Your task to perform on an android device: turn off sleep mode Image 0: 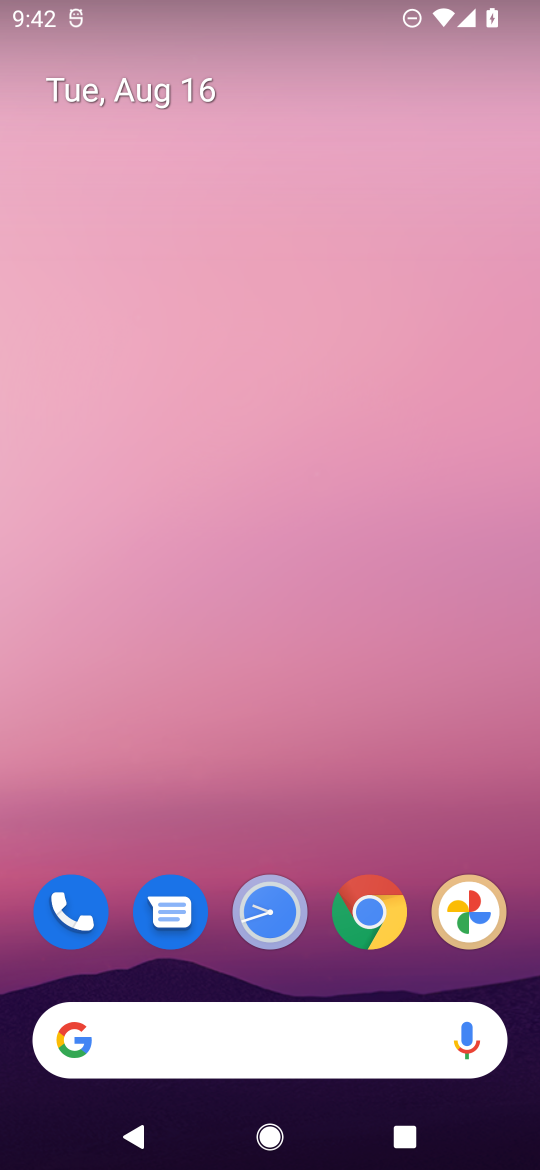
Step 0: drag from (273, 845) to (291, 20)
Your task to perform on an android device: turn off sleep mode Image 1: 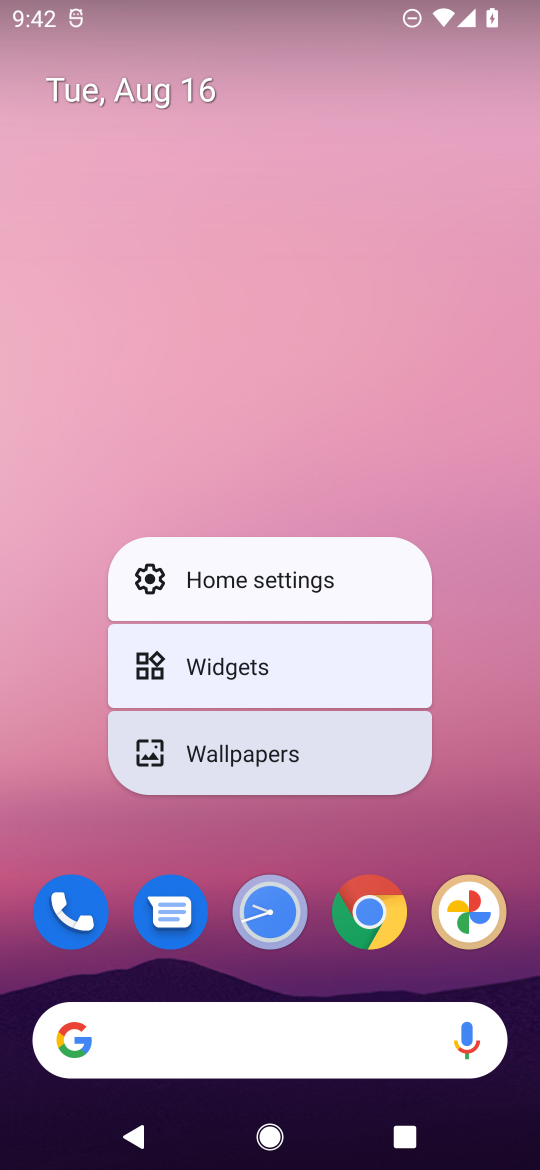
Step 1: click (407, 437)
Your task to perform on an android device: turn off sleep mode Image 2: 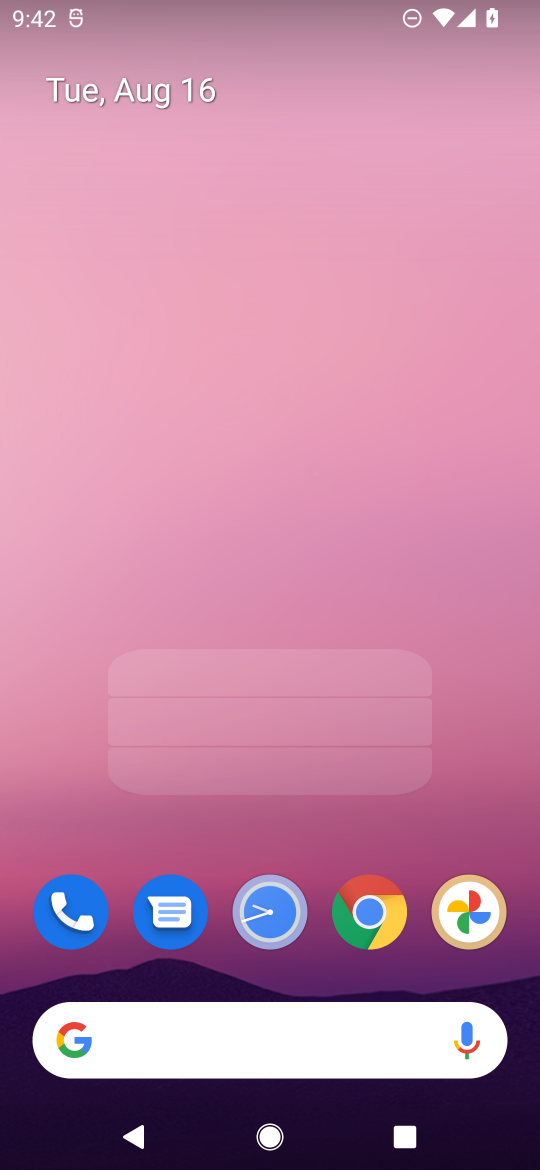
Step 2: click (407, 437)
Your task to perform on an android device: turn off sleep mode Image 3: 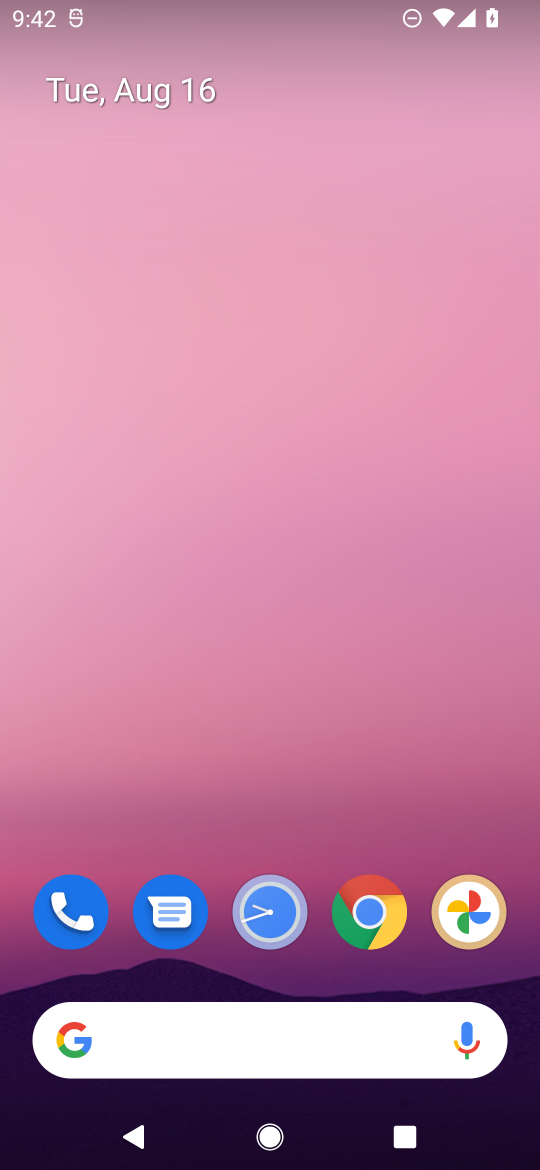
Step 3: drag from (317, 861) to (277, 186)
Your task to perform on an android device: turn off sleep mode Image 4: 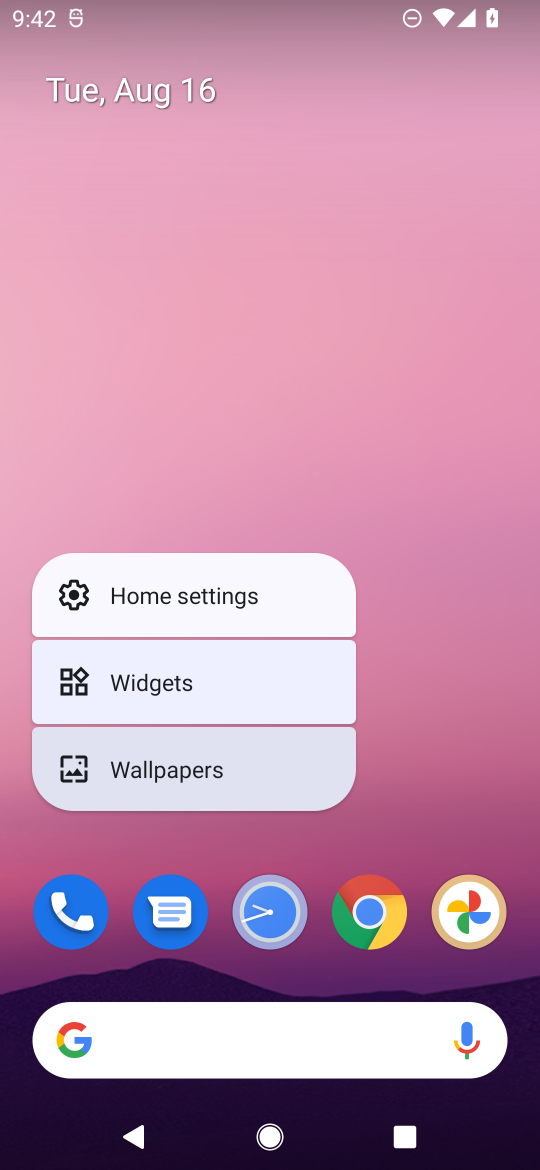
Step 4: click (458, 838)
Your task to perform on an android device: turn off sleep mode Image 5: 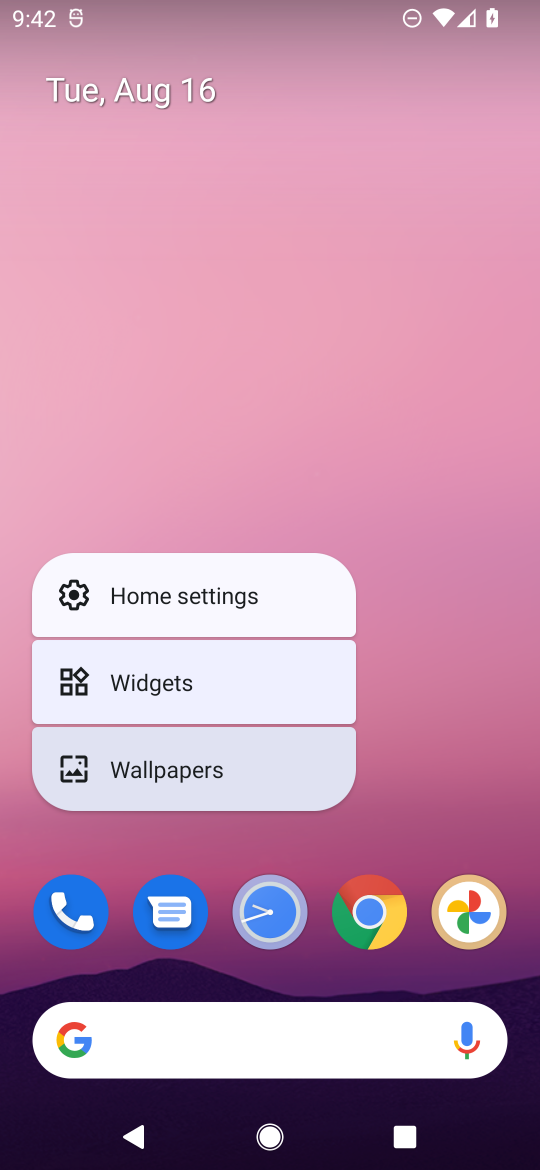
Step 5: click (458, 838)
Your task to perform on an android device: turn off sleep mode Image 6: 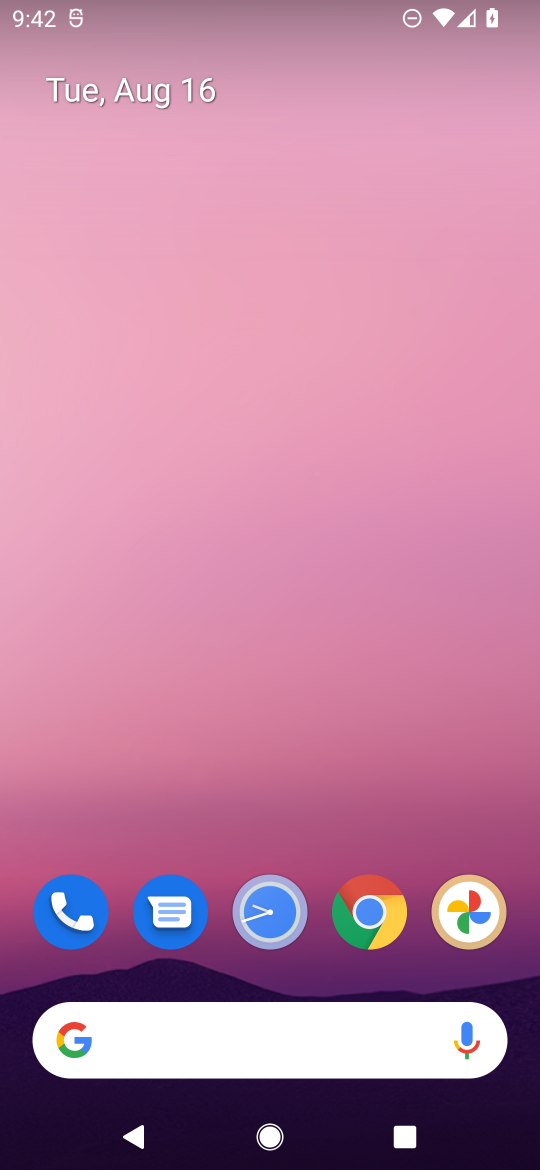
Step 6: drag from (312, 980) to (301, 223)
Your task to perform on an android device: turn off sleep mode Image 7: 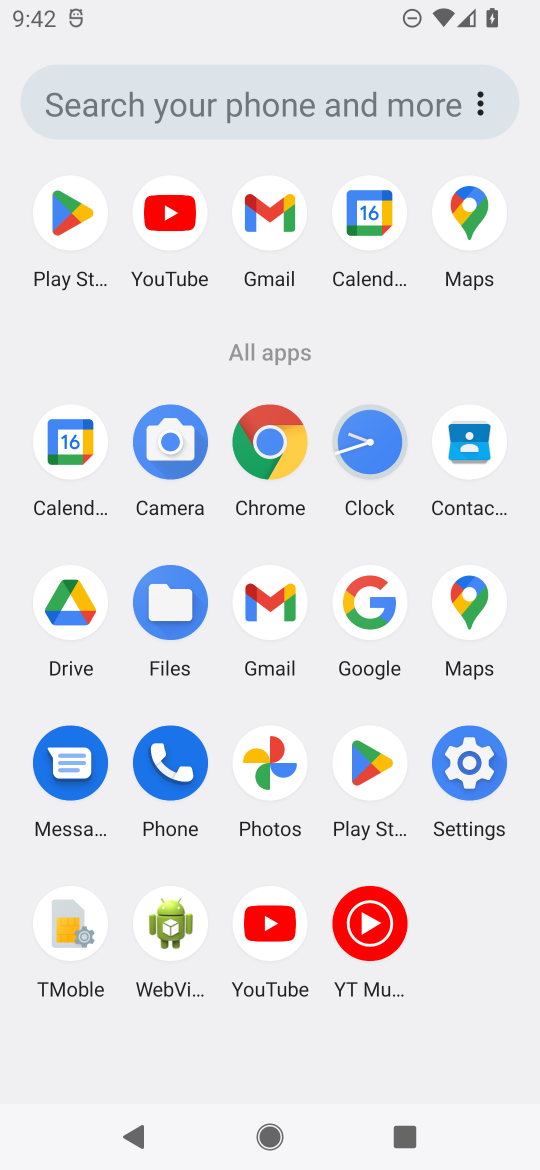
Step 7: click (490, 793)
Your task to perform on an android device: turn off sleep mode Image 8: 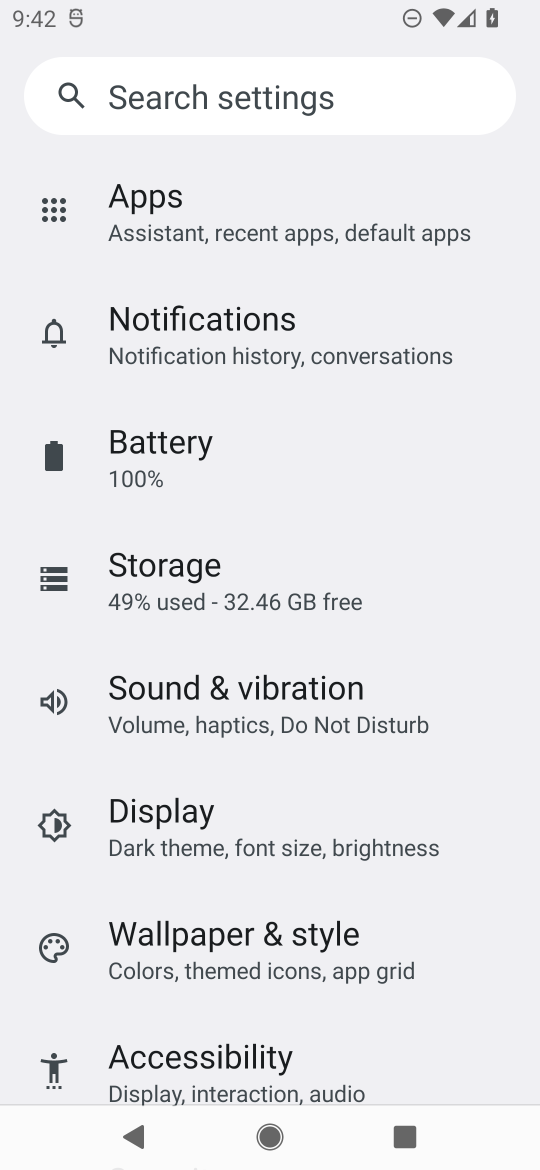
Step 8: task complete